Your task to perform on an android device: Go to sound settings Image 0: 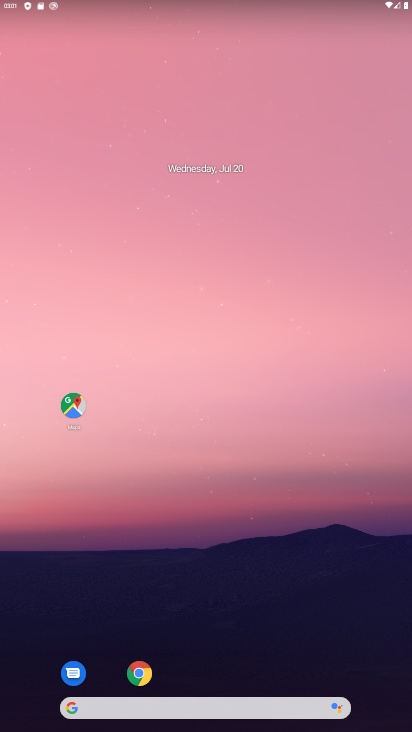
Step 0: drag from (373, 673) to (300, 75)
Your task to perform on an android device: Go to sound settings Image 1: 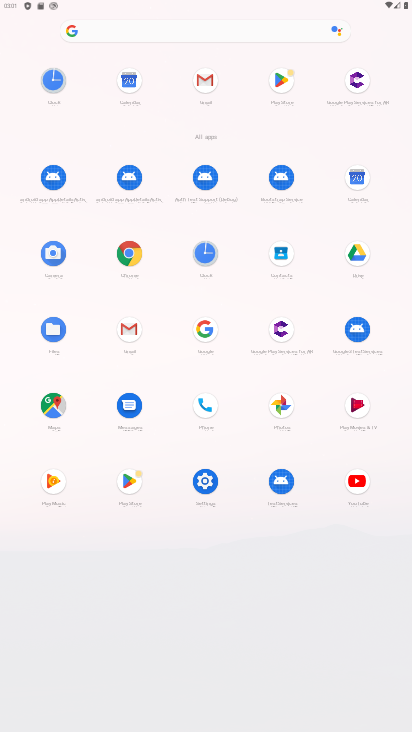
Step 1: click (207, 486)
Your task to perform on an android device: Go to sound settings Image 2: 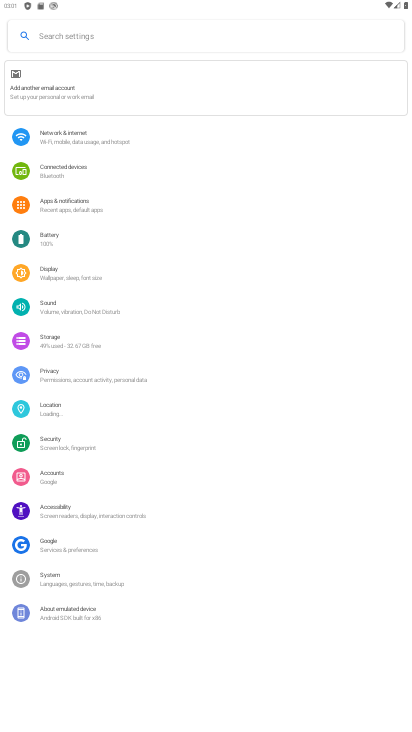
Step 2: click (105, 311)
Your task to perform on an android device: Go to sound settings Image 3: 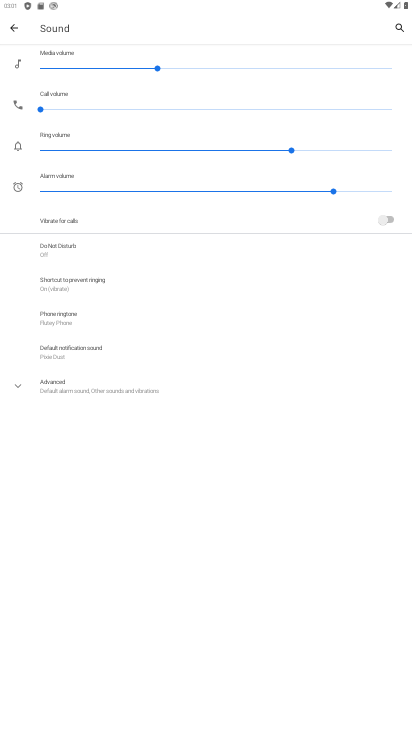
Step 3: task complete